Your task to perform on an android device: Clear the shopping cart on newegg.com. Image 0: 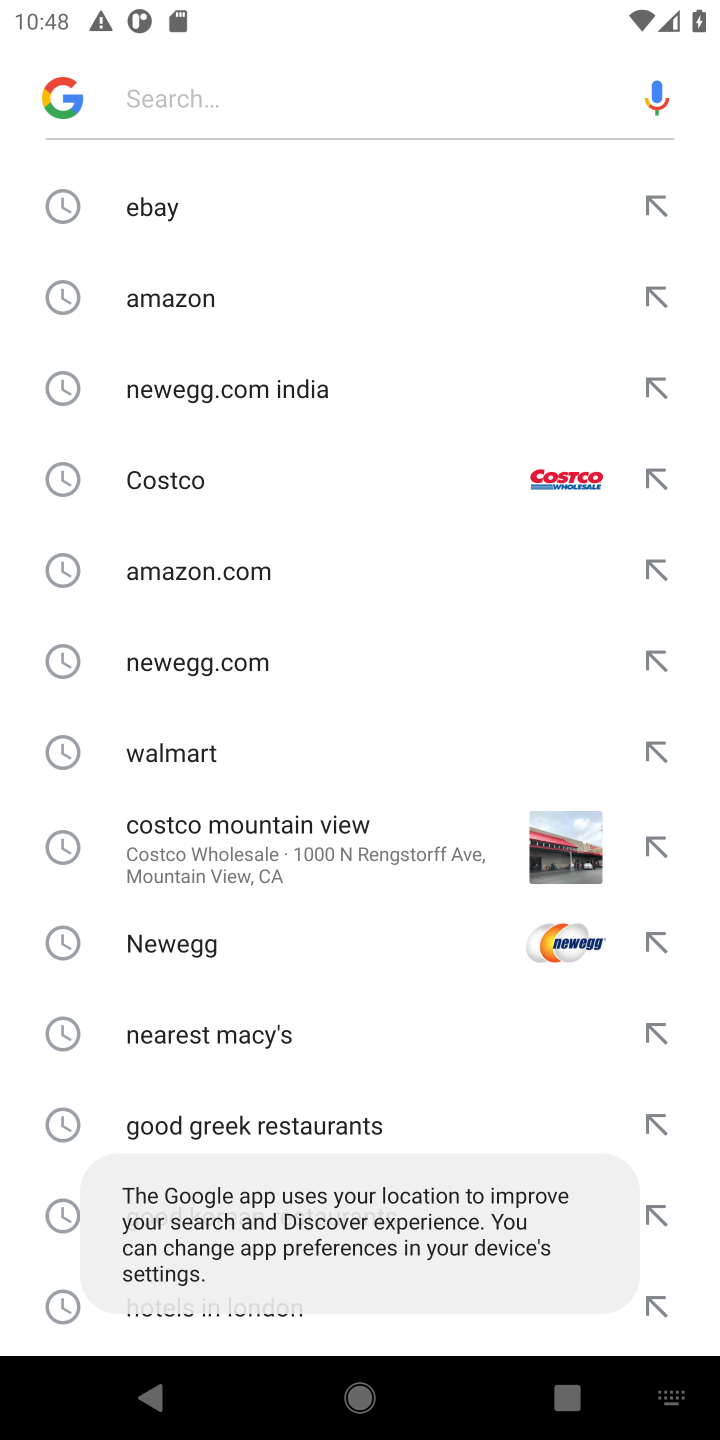
Step 0: press home button
Your task to perform on an android device: Clear the shopping cart on newegg.com. Image 1: 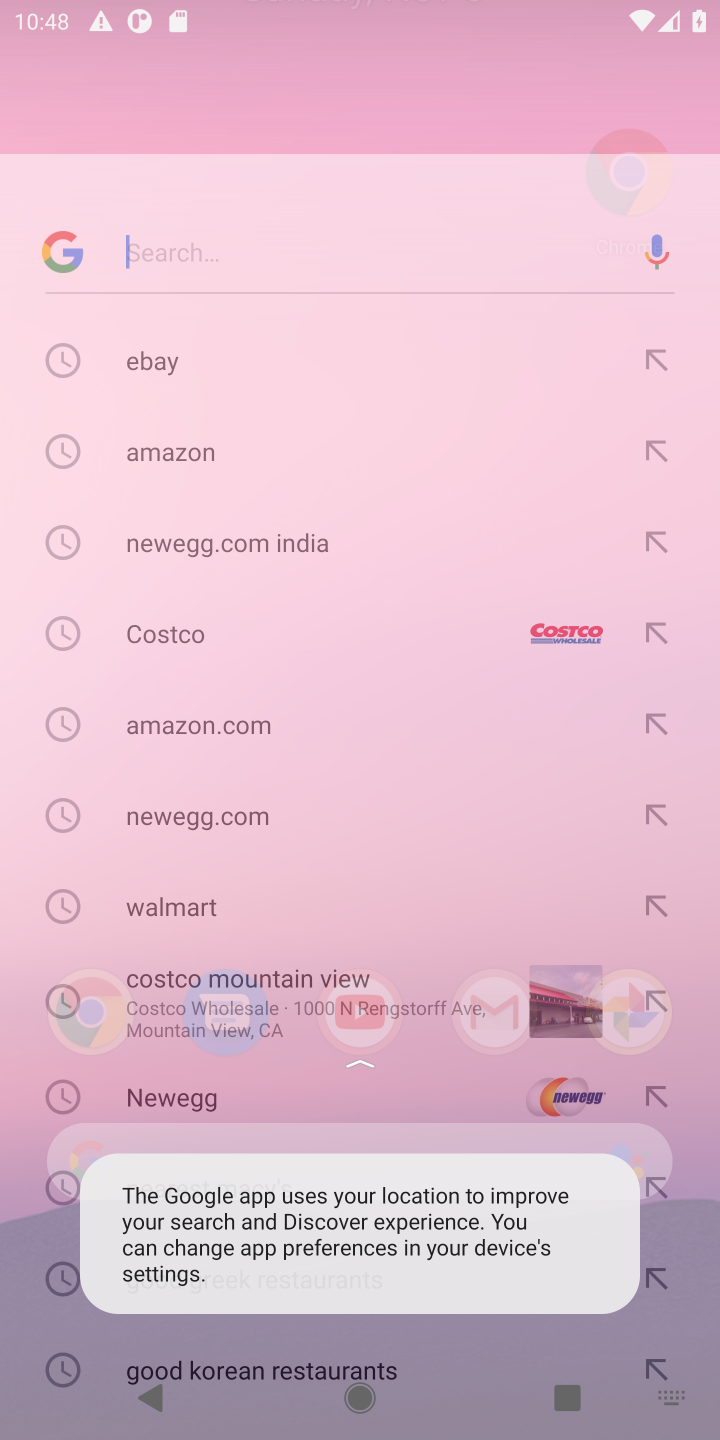
Step 1: press home button
Your task to perform on an android device: Clear the shopping cart on newegg.com. Image 2: 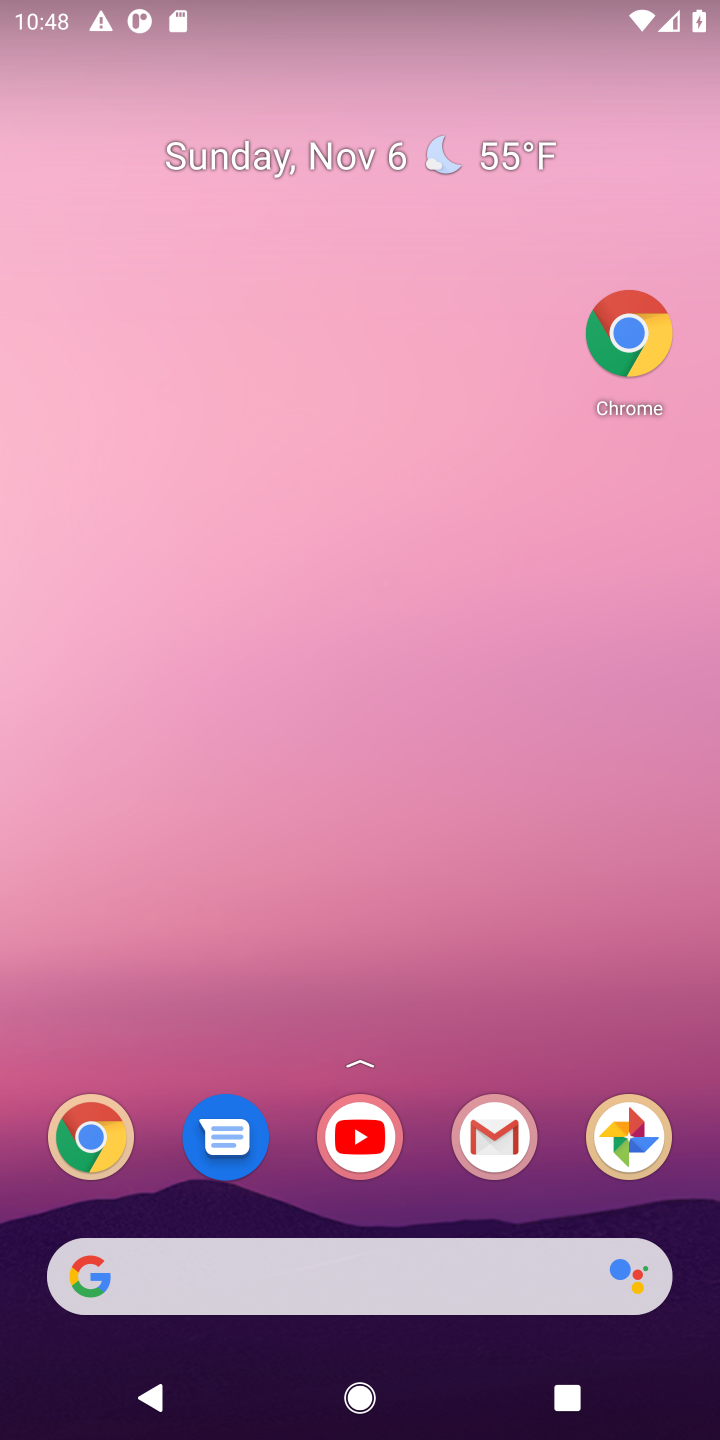
Step 2: drag from (439, 1179) to (427, 12)
Your task to perform on an android device: Clear the shopping cart on newegg.com. Image 3: 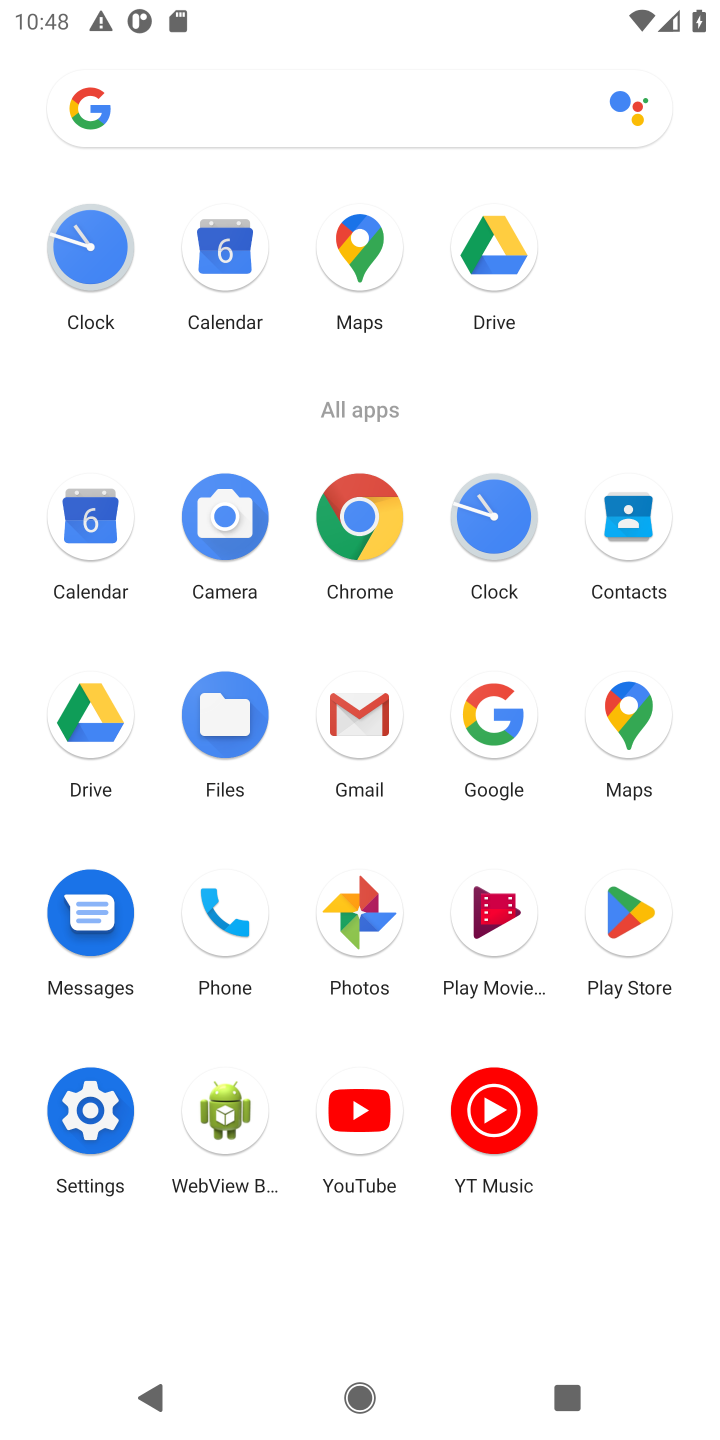
Step 3: click (360, 533)
Your task to perform on an android device: Clear the shopping cart on newegg.com. Image 4: 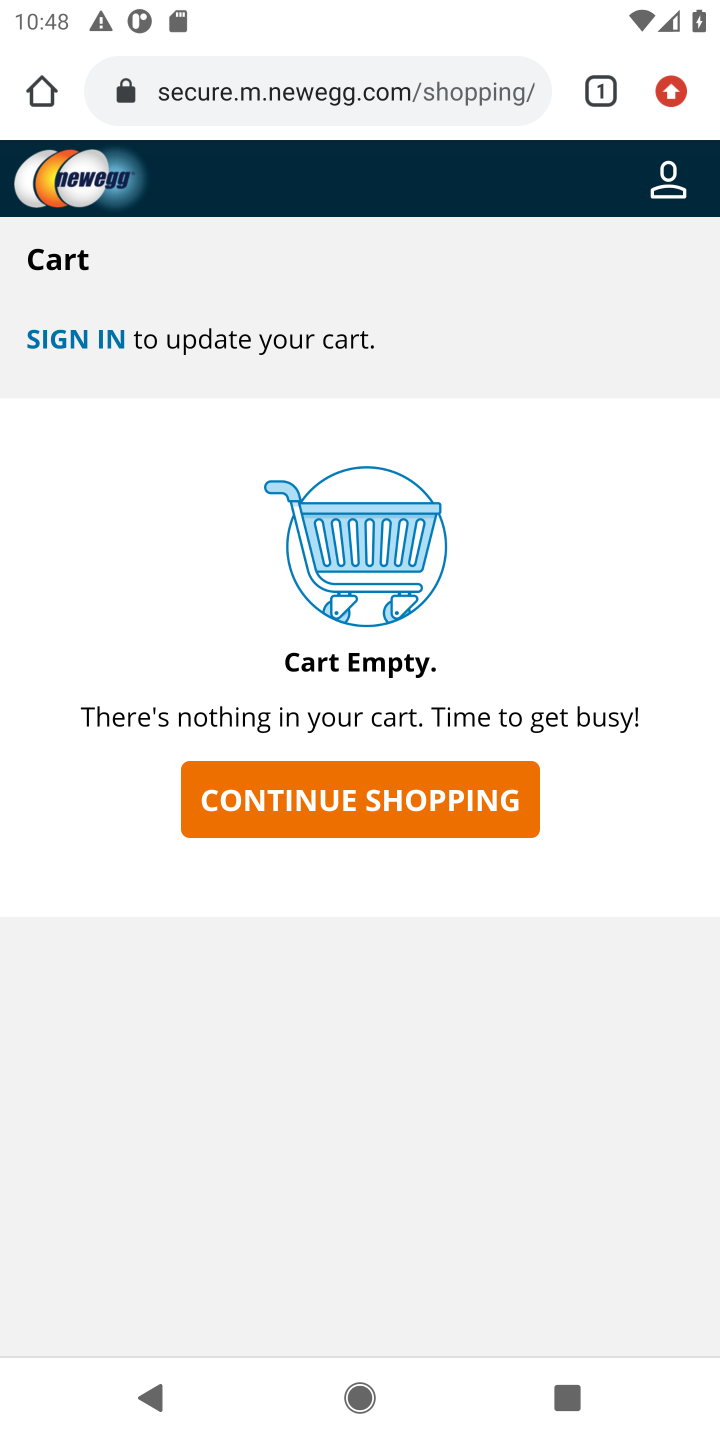
Step 4: task complete